Your task to perform on an android device: change notification settings in the gmail app Image 0: 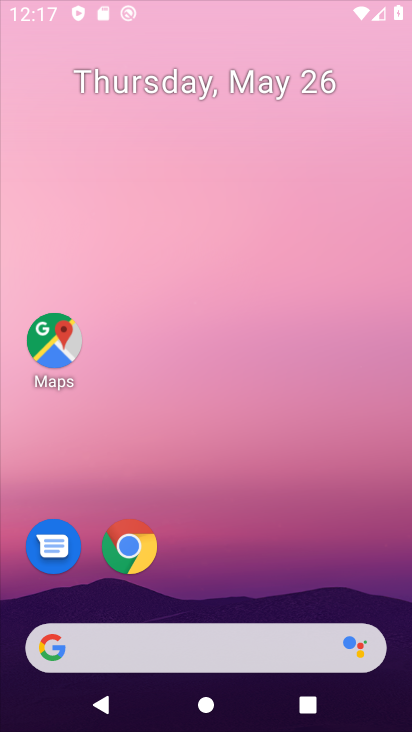
Step 0: press home button
Your task to perform on an android device: change notification settings in the gmail app Image 1: 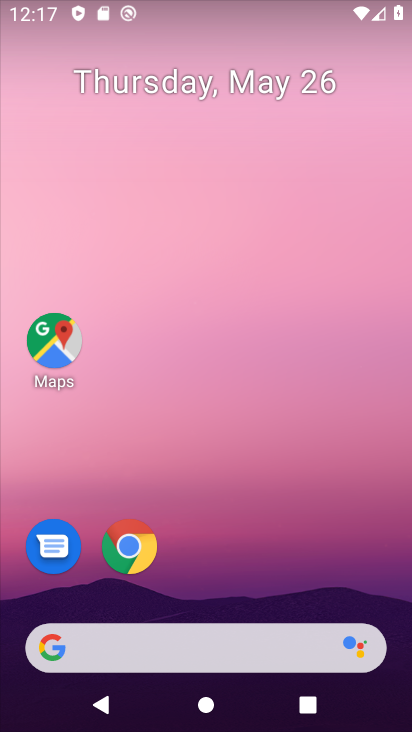
Step 1: drag from (396, 627) to (270, 2)
Your task to perform on an android device: change notification settings in the gmail app Image 2: 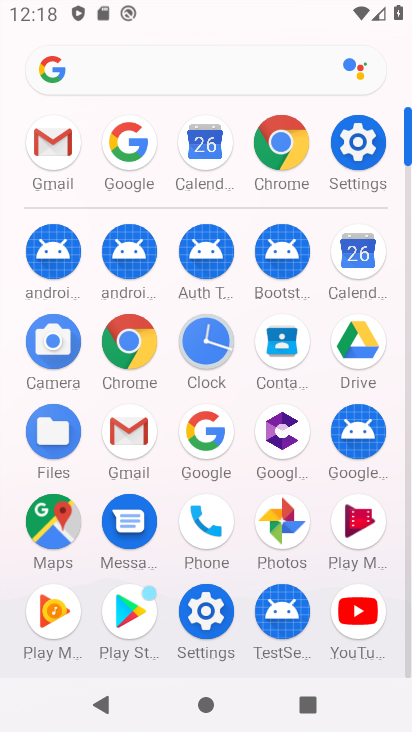
Step 2: click (125, 414)
Your task to perform on an android device: change notification settings in the gmail app Image 3: 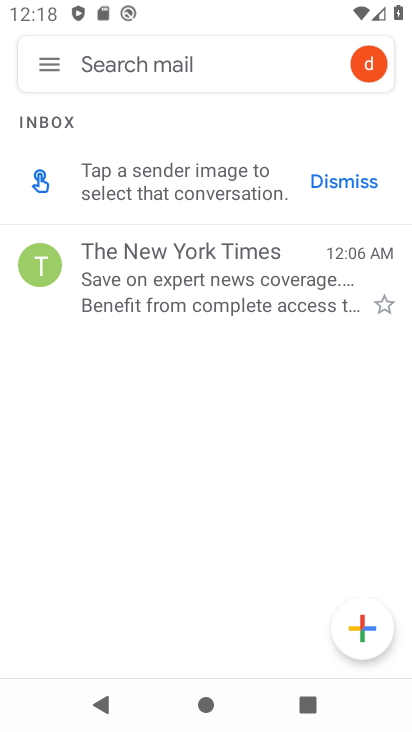
Step 3: click (40, 60)
Your task to perform on an android device: change notification settings in the gmail app Image 4: 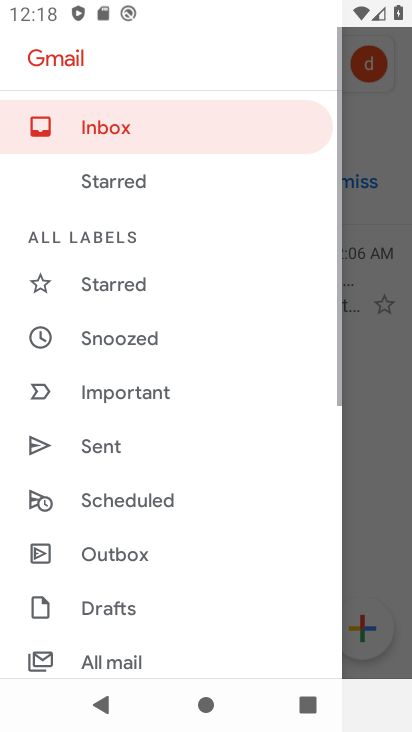
Step 4: drag from (99, 628) to (211, 95)
Your task to perform on an android device: change notification settings in the gmail app Image 5: 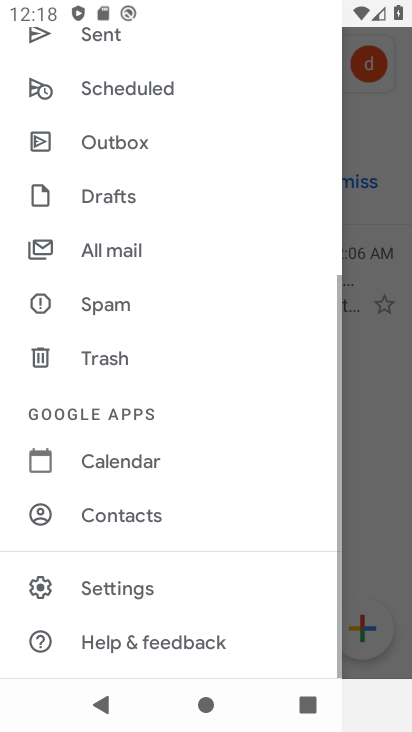
Step 5: click (177, 577)
Your task to perform on an android device: change notification settings in the gmail app Image 6: 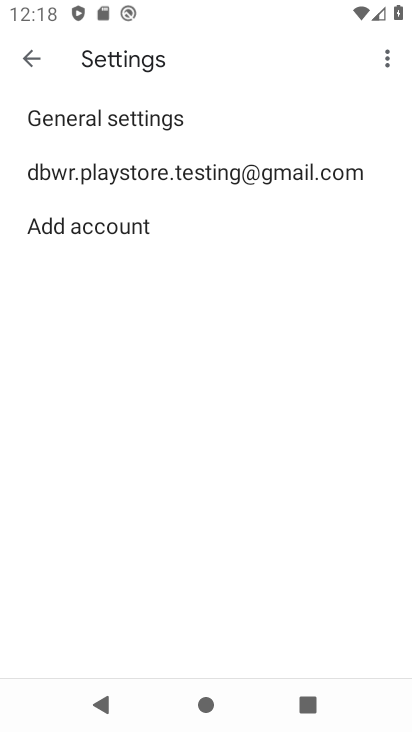
Step 6: click (240, 173)
Your task to perform on an android device: change notification settings in the gmail app Image 7: 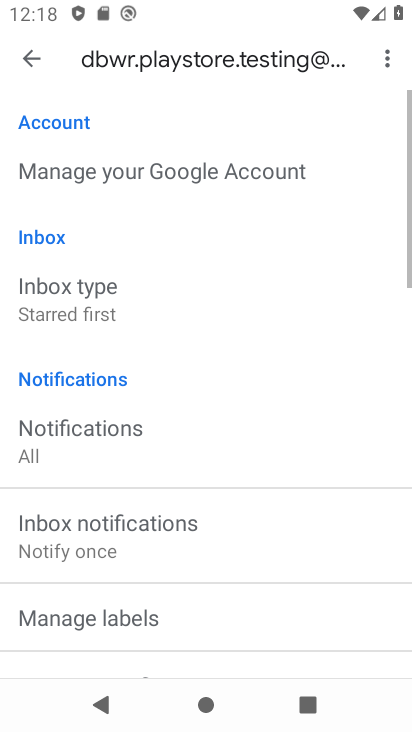
Step 7: click (99, 436)
Your task to perform on an android device: change notification settings in the gmail app Image 8: 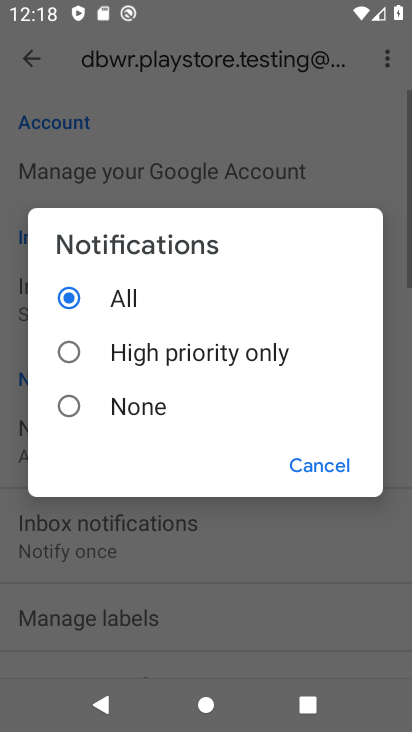
Step 8: click (70, 401)
Your task to perform on an android device: change notification settings in the gmail app Image 9: 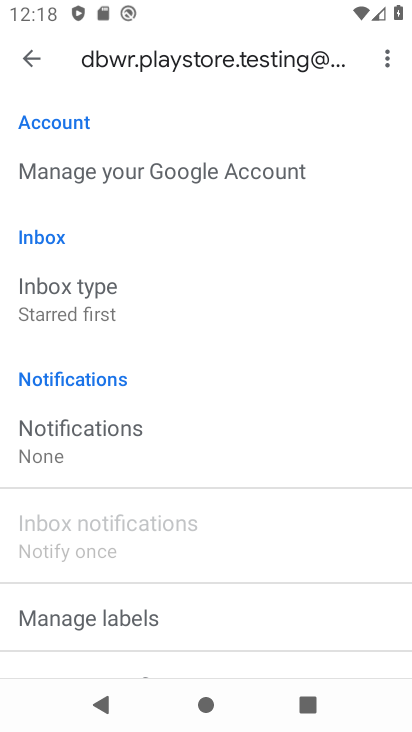
Step 9: task complete